Your task to perform on an android device: toggle data saver in the chrome app Image 0: 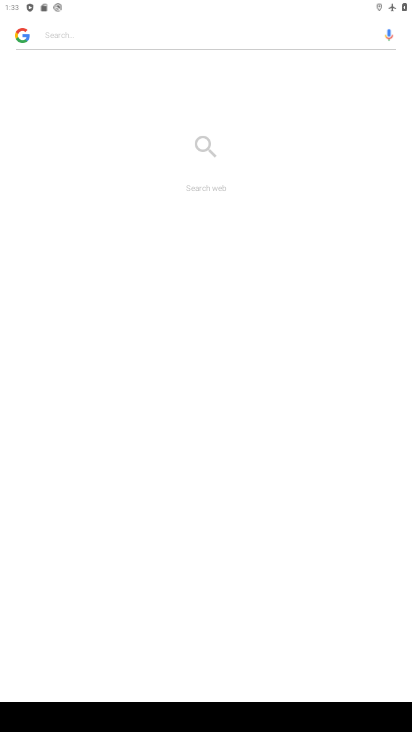
Step 0: press home button
Your task to perform on an android device: toggle data saver in the chrome app Image 1: 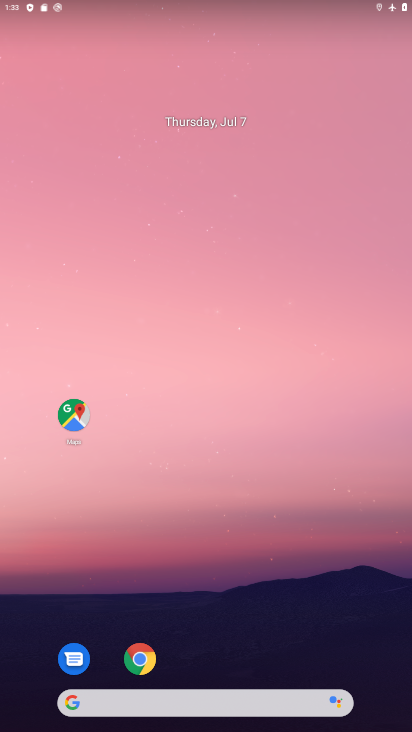
Step 1: drag from (222, 609) to (250, 179)
Your task to perform on an android device: toggle data saver in the chrome app Image 2: 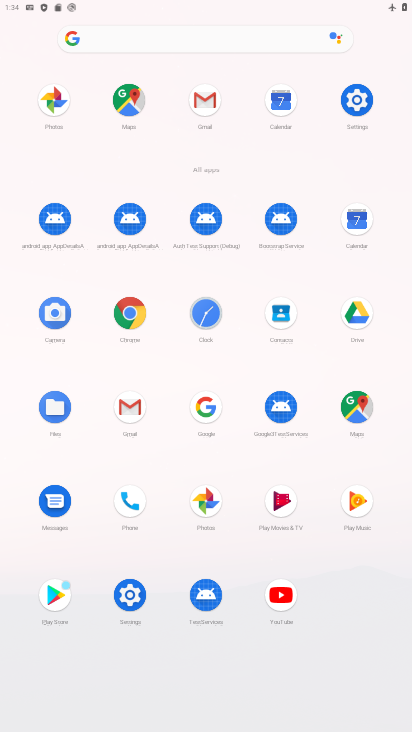
Step 2: click (141, 315)
Your task to perform on an android device: toggle data saver in the chrome app Image 3: 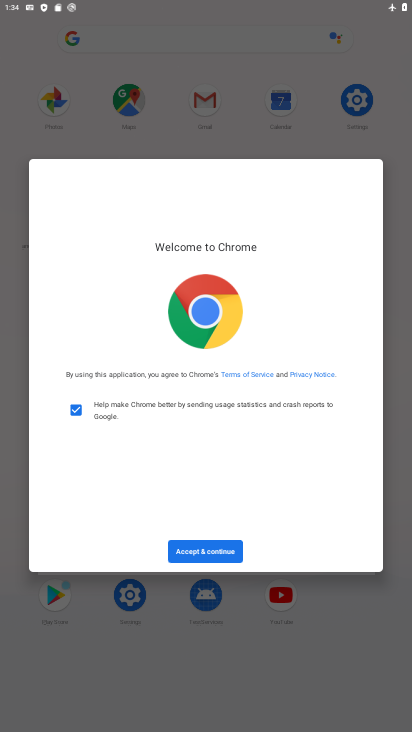
Step 3: click (204, 547)
Your task to perform on an android device: toggle data saver in the chrome app Image 4: 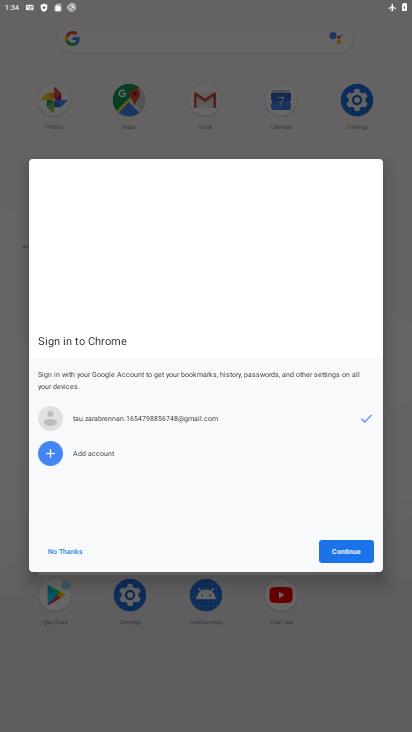
Step 4: click (331, 555)
Your task to perform on an android device: toggle data saver in the chrome app Image 5: 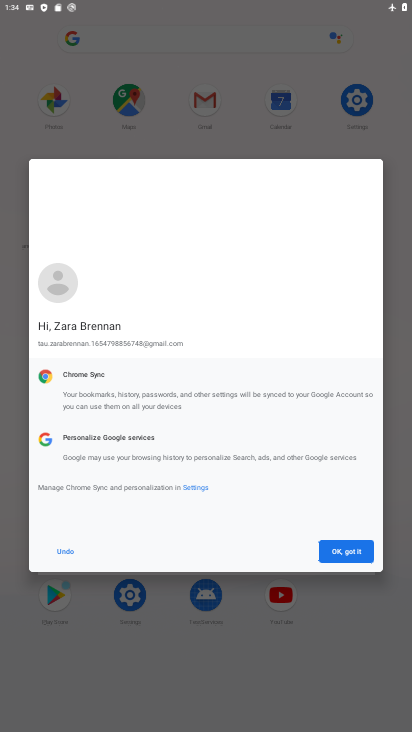
Step 5: click (331, 555)
Your task to perform on an android device: toggle data saver in the chrome app Image 6: 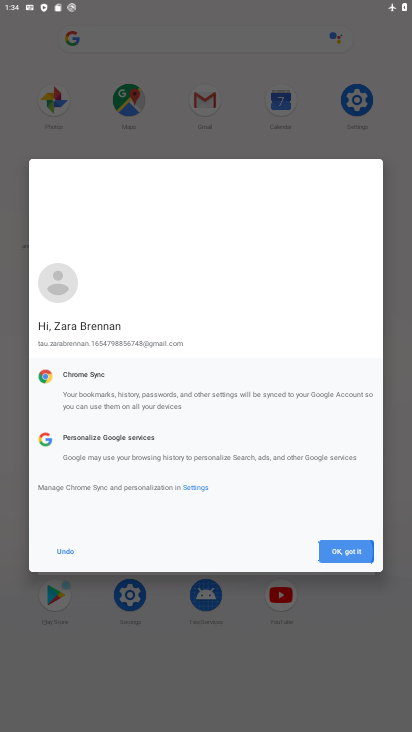
Step 6: click (350, 548)
Your task to perform on an android device: toggle data saver in the chrome app Image 7: 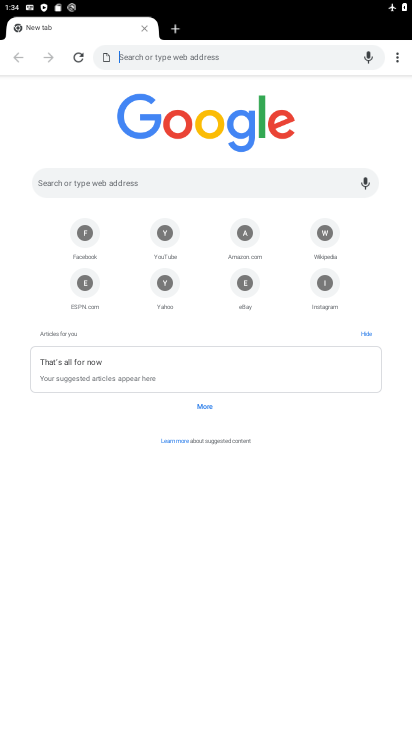
Step 7: click (399, 57)
Your task to perform on an android device: toggle data saver in the chrome app Image 8: 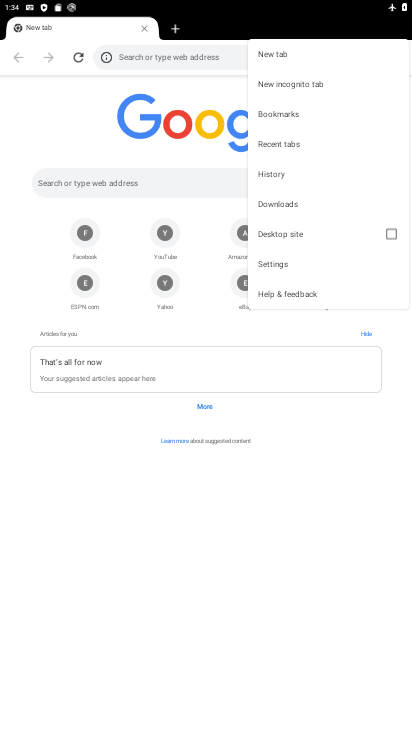
Step 8: click (275, 270)
Your task to perform on an android device: toggle data saver in the chrome app Image 9: 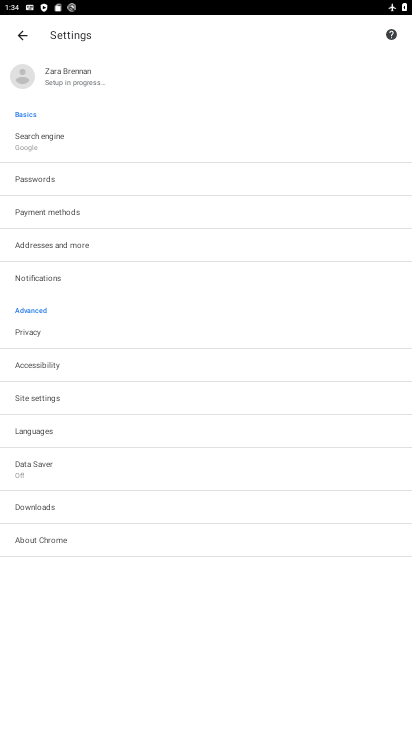
Step 9: click (43, 471)
Your task to perform on an android device: toggle data saver in the chrome app Image 10: 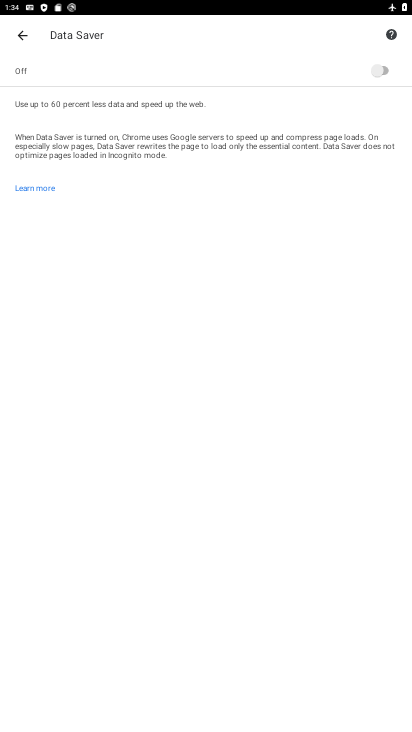
Step 10: click (250, 68)
Your task to perform on an android device: toggle data saver in the chrome app Image 11: 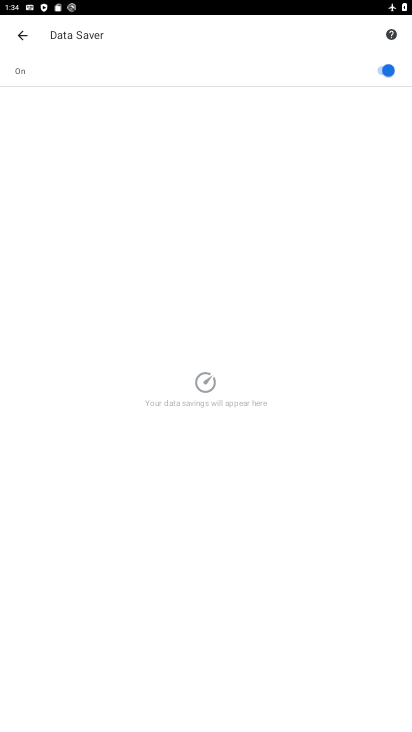
Step 11: task complete